Your task to perform on an android device: delete location history Image 0: 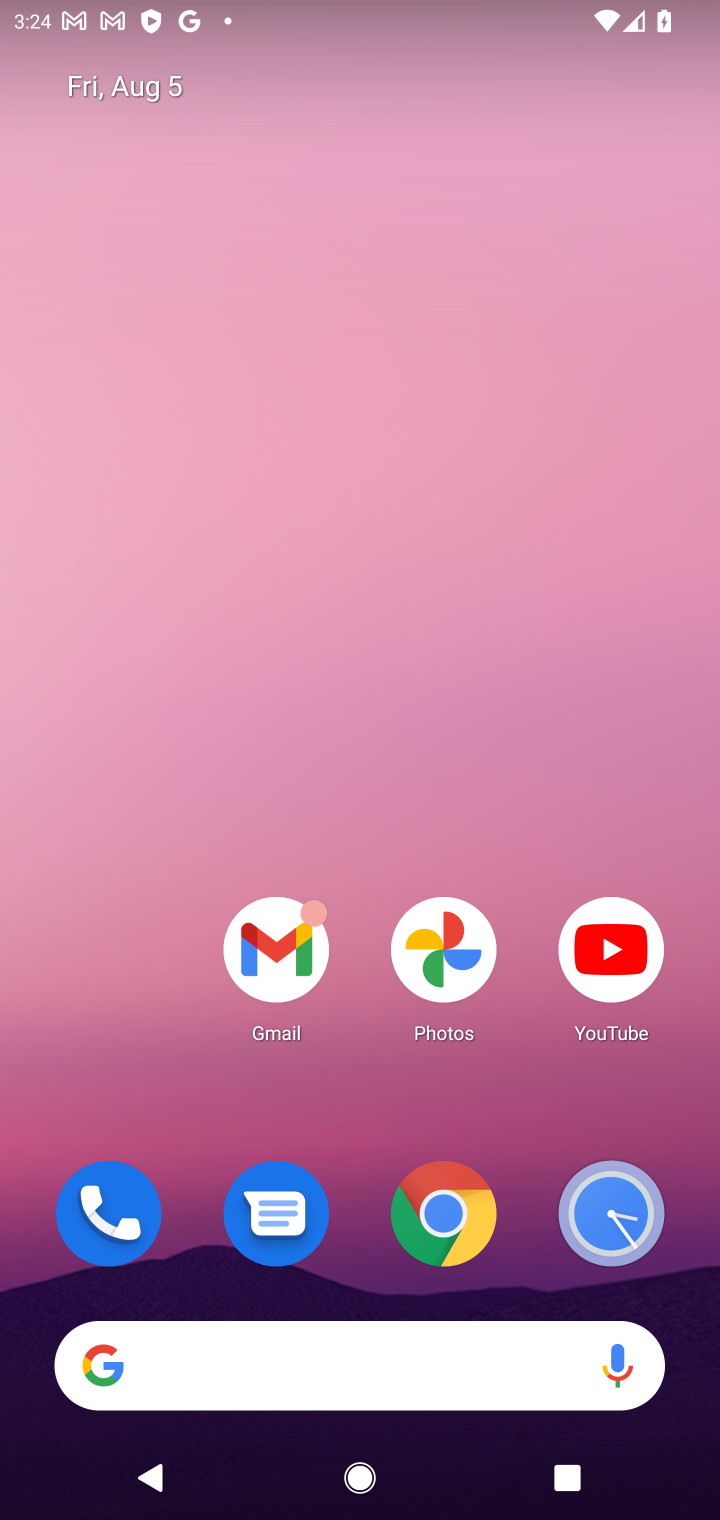
Step 0: drag from (364, 1306) to (364, 99)
Your task to perform on an android device: delete location history Image 1: 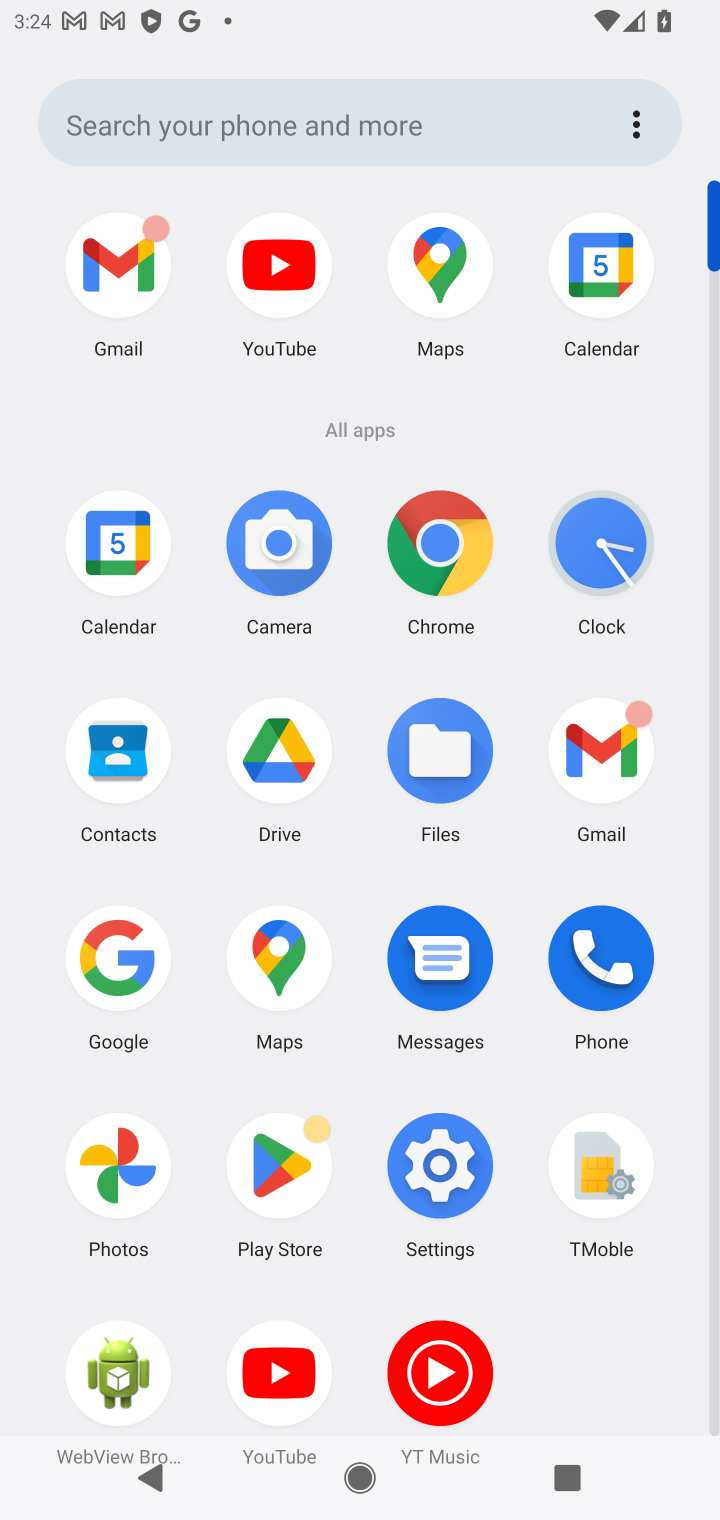
Step 1: click (407, 1218)
Your task to perform on an android device: delete location history Image 2: 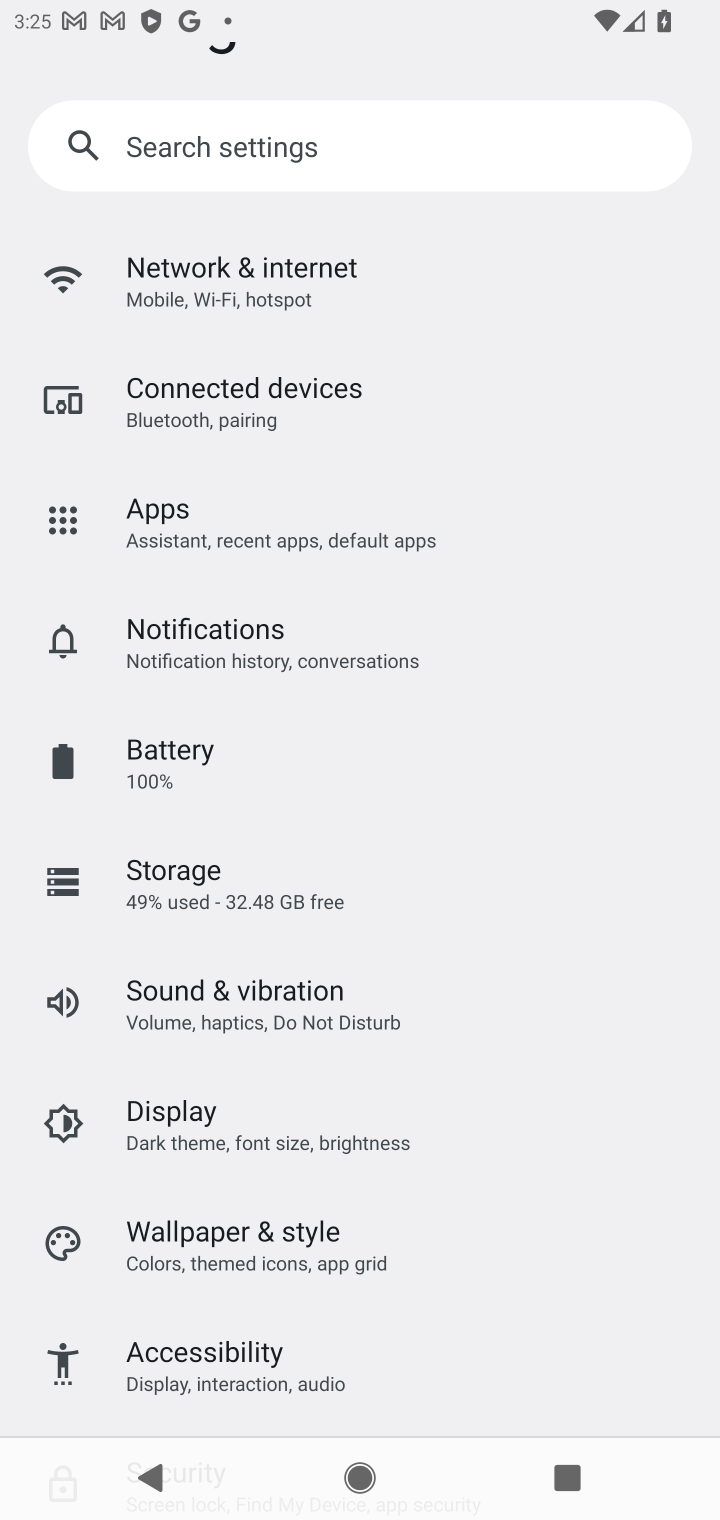
Step 2: drag from (296, 1317) to (245, 596)
Your task to perform on an android device: delete location history Image 3: 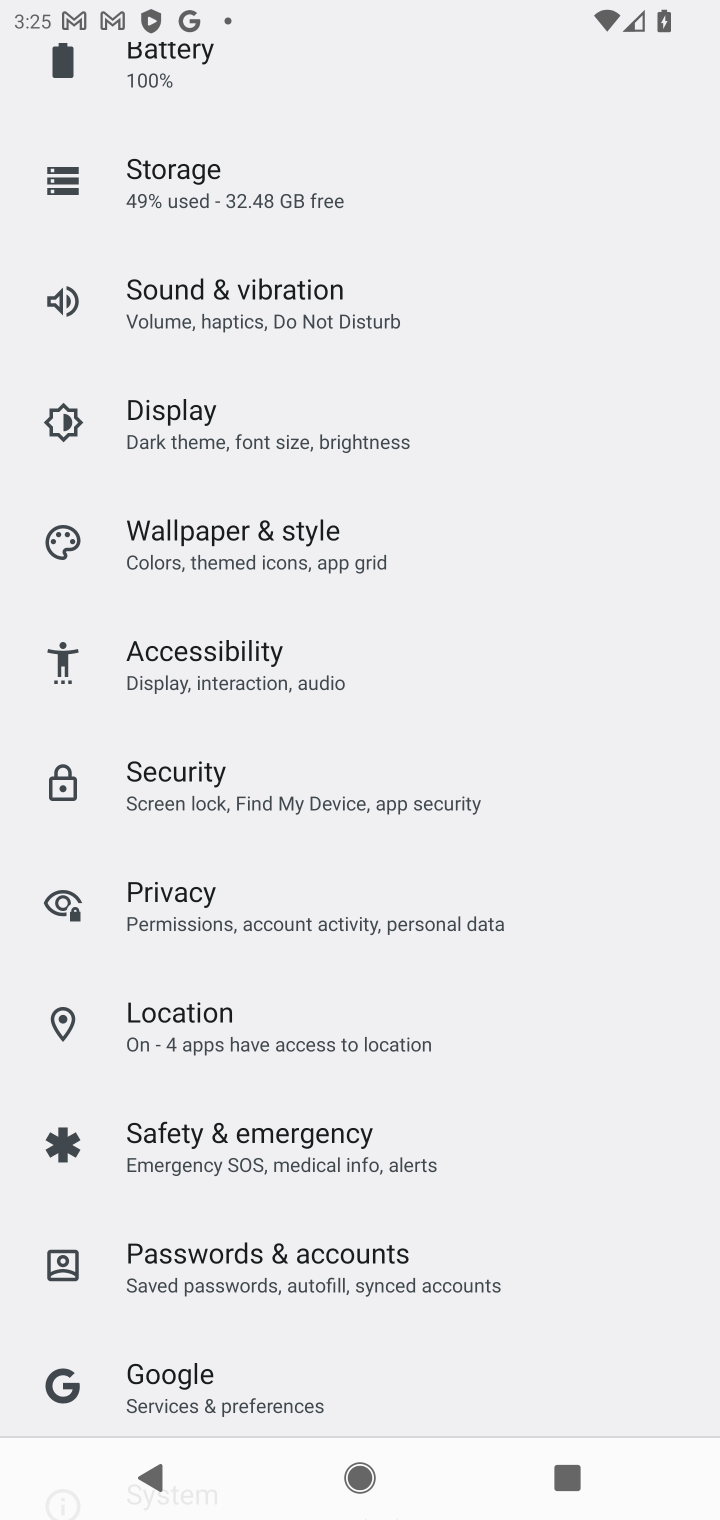
Step 3: click (277, 1039)
Your task to perform on an android device: delete location history Image 4: 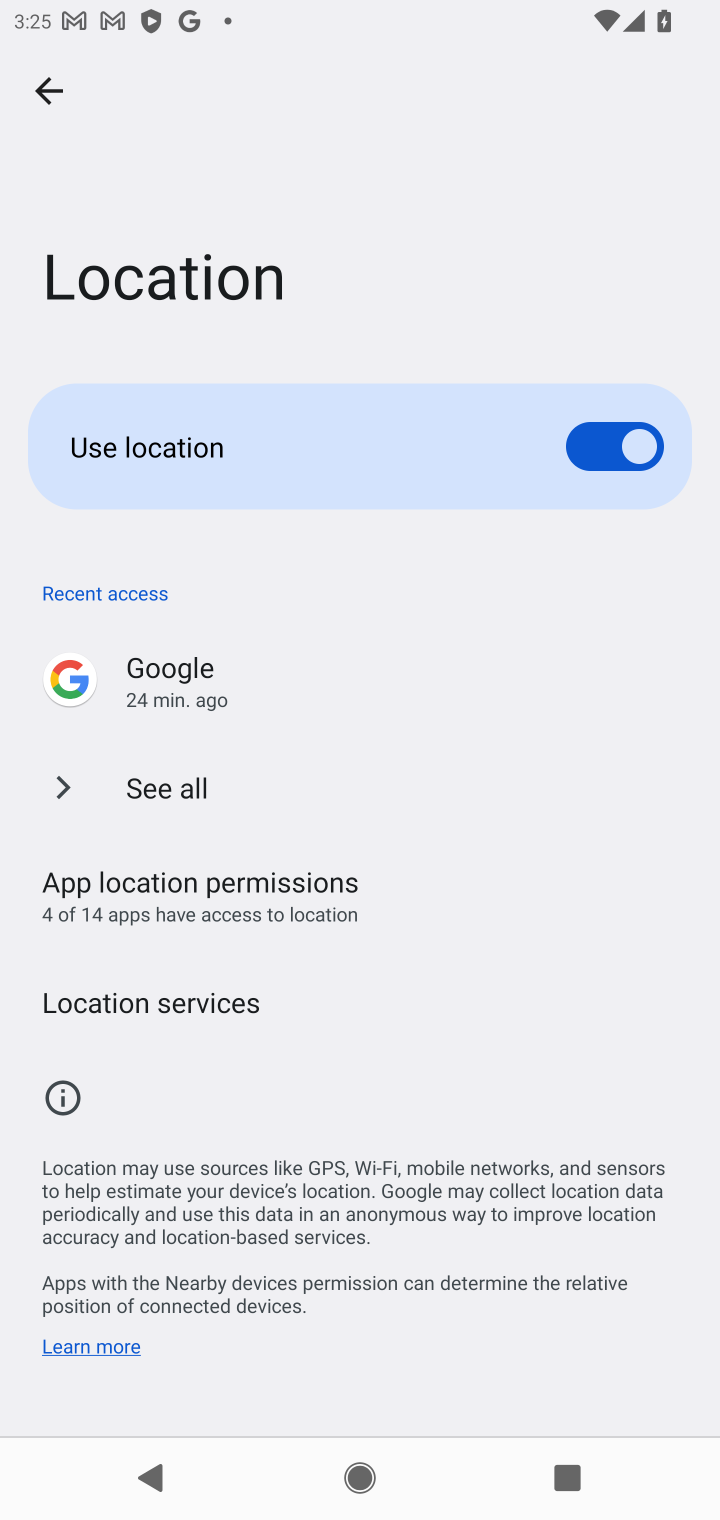
Step 4: task complete